Your task to perform on an android device: Go to Yahoo.com Image 0: 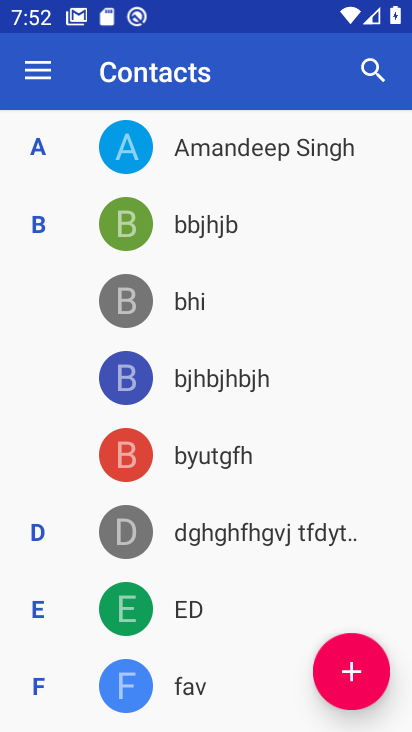
Step 0: press home button
Your task to perform on an android device: Go to Yahoo.com Image 1: 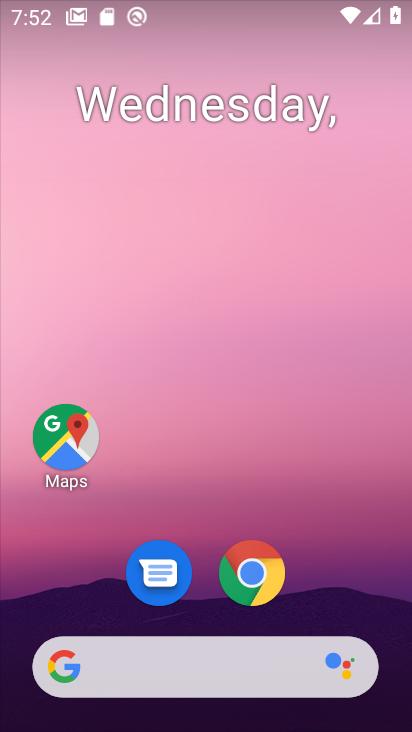
Step 1: click (250, 580)
Your task to perform on an android device: Go to Yahoo.com Image 2: 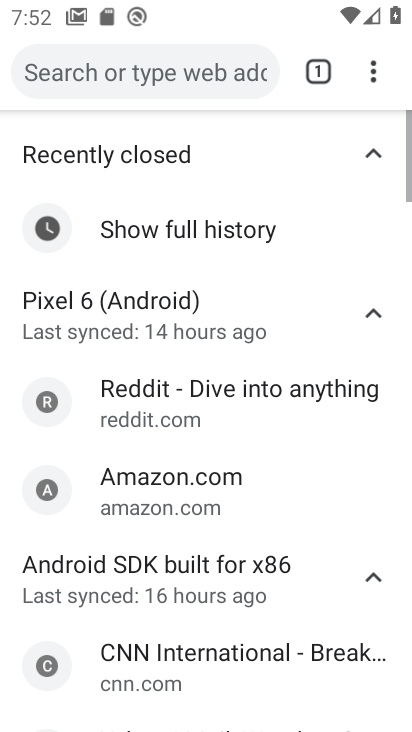
Step 2: click (180, 62)
Your task to perform on an android device: Go to Yahoo.com Image 3: 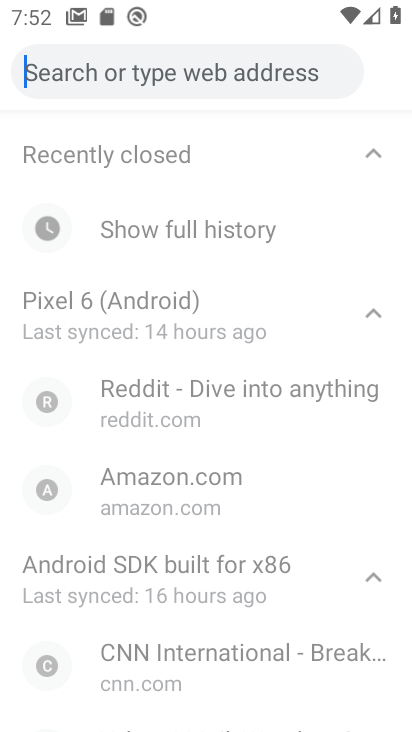
Step 3: click (168, 72)
Your task to perform on an android device: Go to Yahoo.com Image 4: 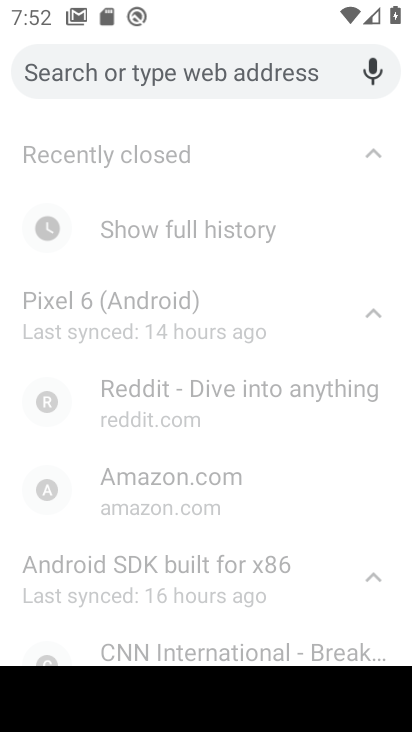
Step 4: type "yahoo.com"
Your task to perform on an android device: Go to Yahoo.com Image 5: 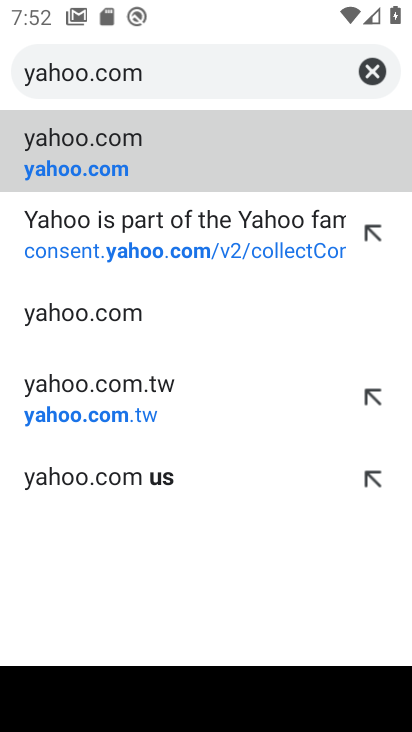
Step 5: click (99, 164)
Your task to perform on an android device: Go to Yahoo.com Image 6: 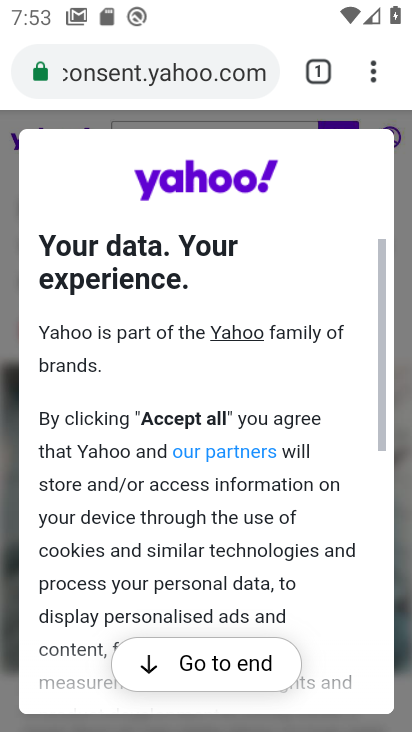
Step 6: task complete